Your task to perform on an android device: open wifi settings Image 0: 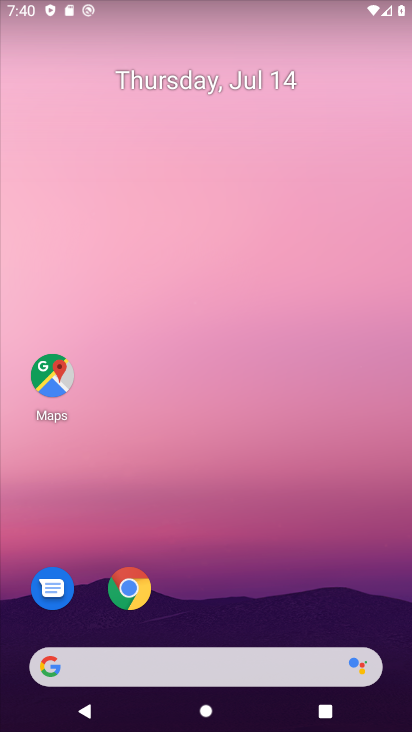
Step 0: drag from (307, 416) to (287, 111)
Your task to perform on an android device: open wifi settings Image 1: 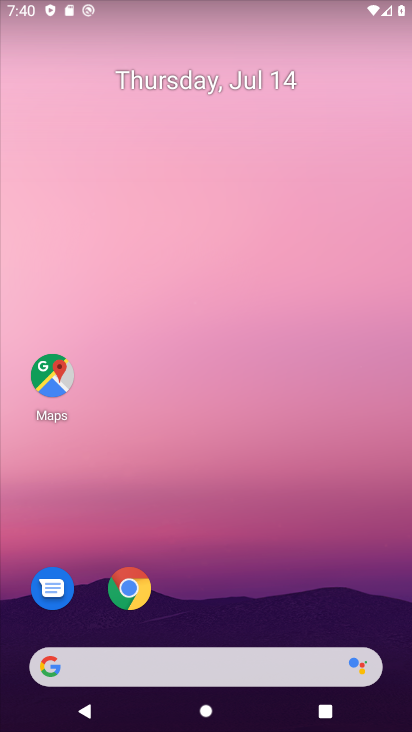
Step 1: drag from (346, 576) to (310, 120)
Your task to perform on an android device: open wifi settings Image 2: 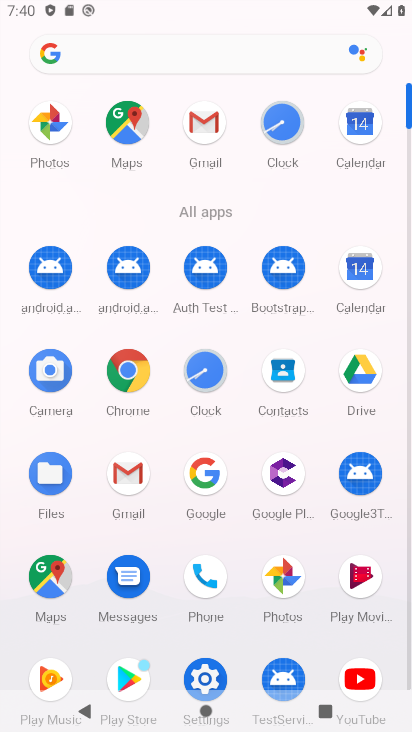
Step 2: click (205, 678)
Your task to perform on an android device: open wifi settings Image 3: 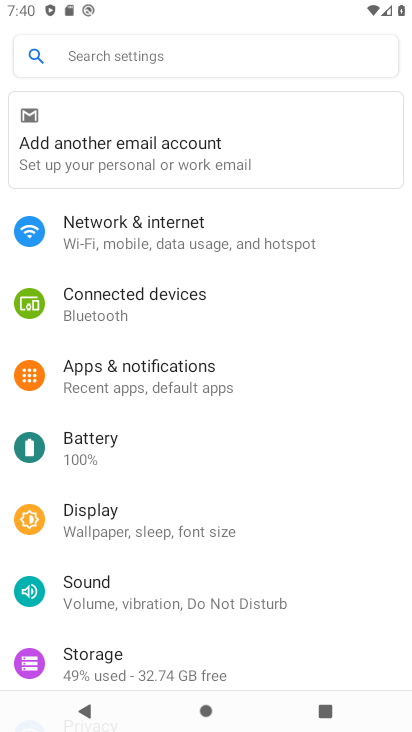
Step 3: click (262, 253)
Your task to perform on an android device: open wifi settings Image 4: 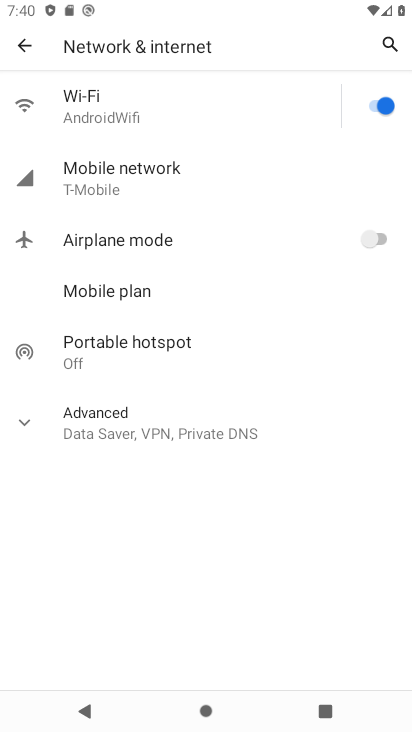
Step 4: click (170, 110)
Your task to perform on an android device: open wifi settings Image 5: 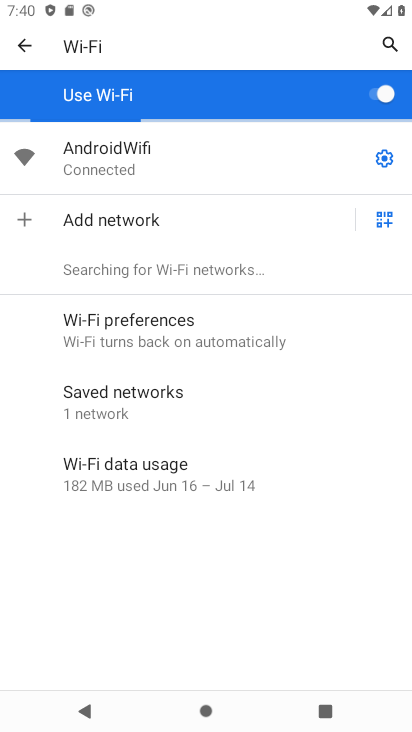
Step 5: click (379, 160)
Your task to perform on an android device: open wifi settings Image 6: 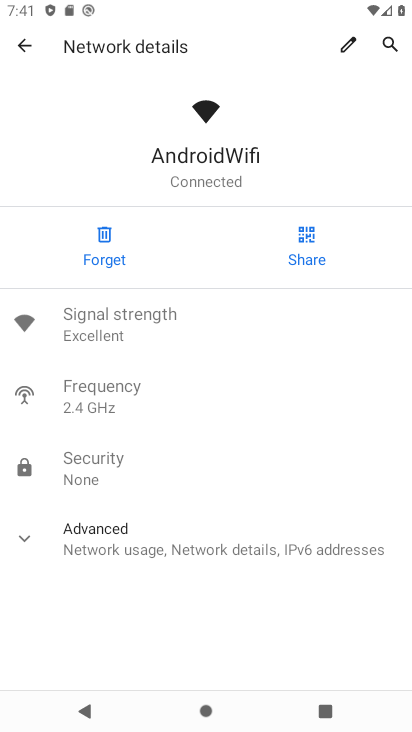
Step 6: task complete